Your task to perform on an android device: toggle sleep mode Image 0: 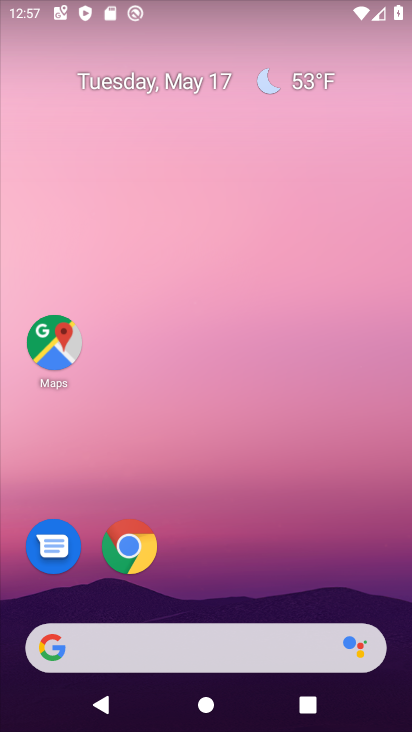
Step 0: click (228, 570)
Your task to perform on an android device: toggle sleep mode Image 1: 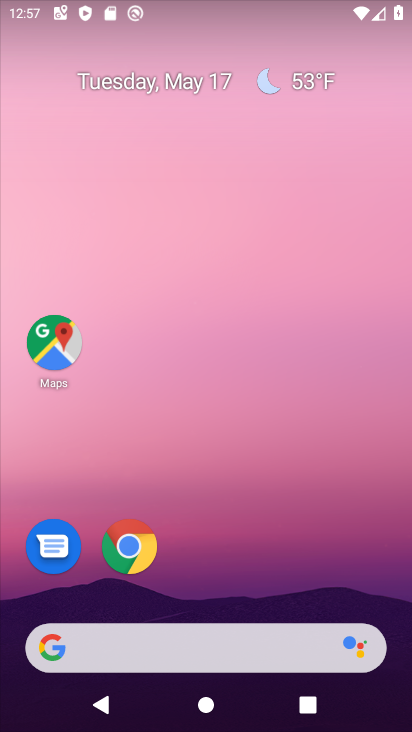
Step 1: click (197, 605)
Your task to perform on an android device: toggle sleep mode Image 2: 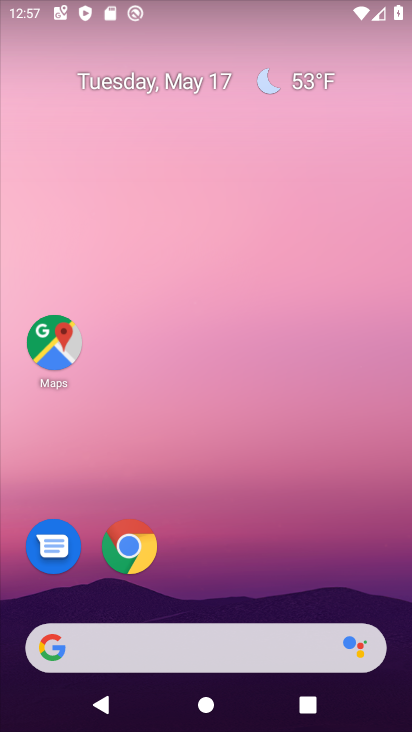
Step 2: click (218, 610)
Your task to perform on an android device: toggle sleep mode Image 3: 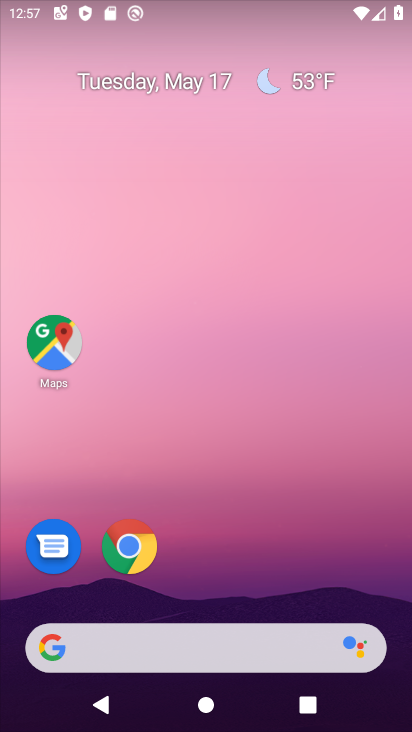
Step 3: click (215, 609)
Your task to perform on an android device: toggle sleep mode Image 4: 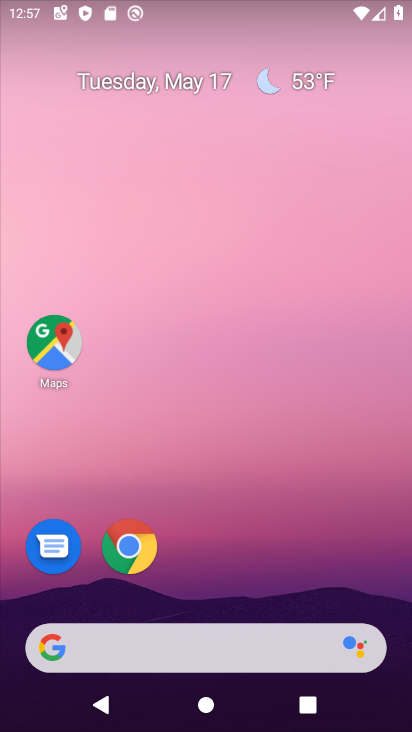
Step 4: drag from (217, 613) to (226, 181)
Your task to perform on an android device: toggle sleep mode Image 5: 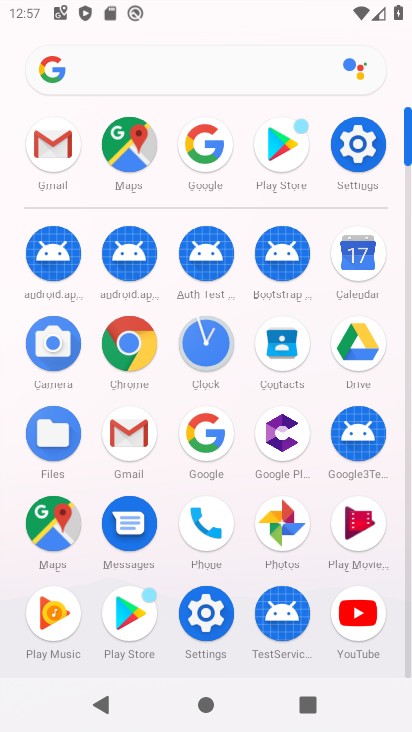
Step 5: click (343, 149)
Your task to perform on an android device: toggle sleep mode Image 6: 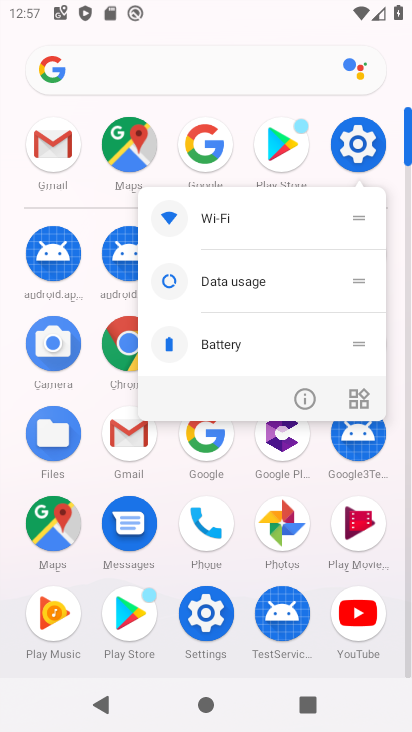
Step 6: click (343, 149)
Your task to perform on an android device: toggle sleep mode Image 7: 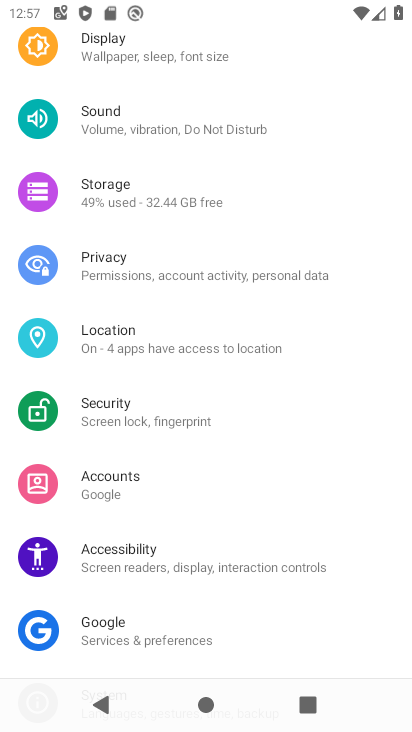
Step 7: click (128, 70)
Your task to perform on an android device: toggle sleep mode Image 8: 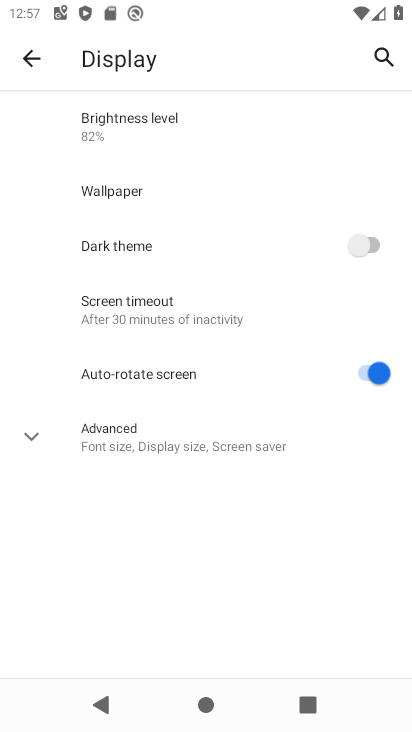
Step 8: click (193, 319)
Your task to perform on an android device: toggle sleep mode Image 9: 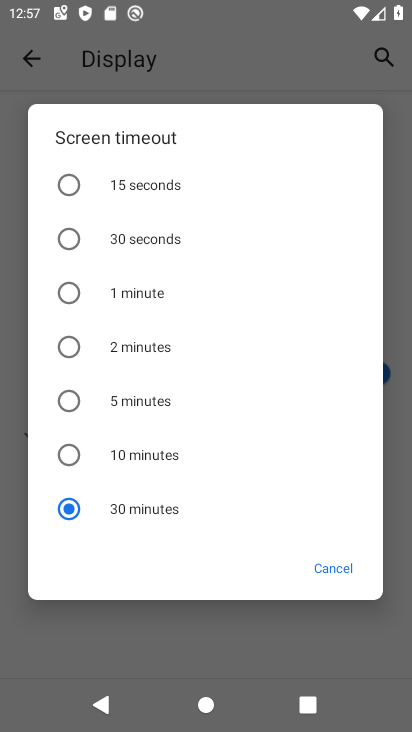
Step 9: click (131, 353)
Your task to perform on an android device: toggle sleep mode Image 10: 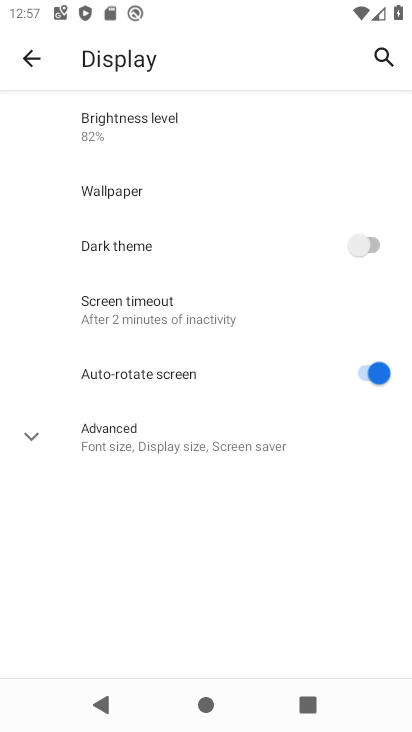
Step 10: task complete